Your task to perform on an android device: Open calendar and show me the second week of next month Image 0: 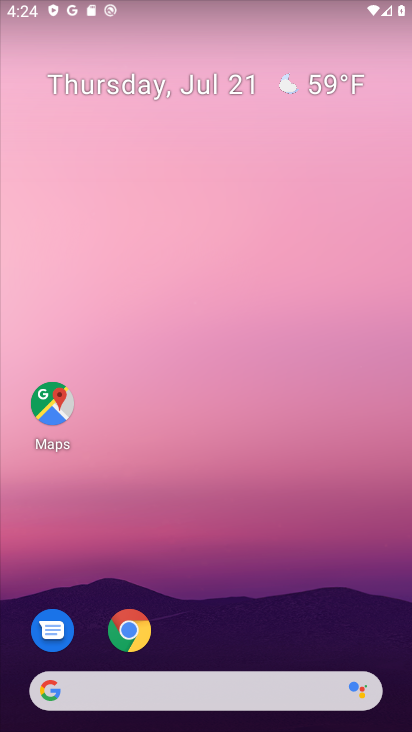
Step 0: drag from (285, 596) to (248, 95)
Your task to perform on an android device: Open calendar and show me the second week of next month Image 1: 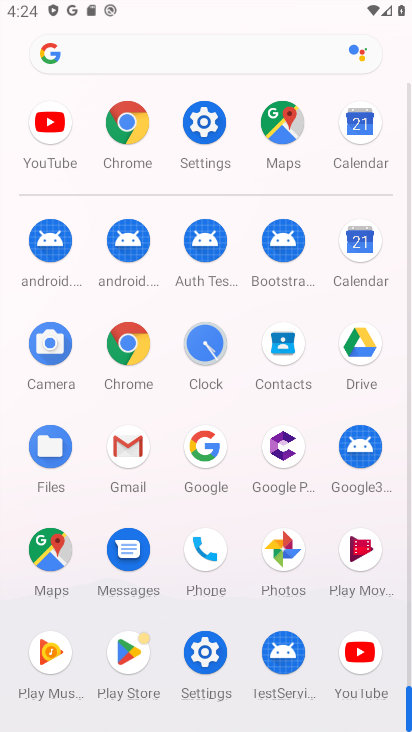
Step 1: click (367, 245)
Your task to perform on an android device: Open calendar and show me the second week of next month Image 2: 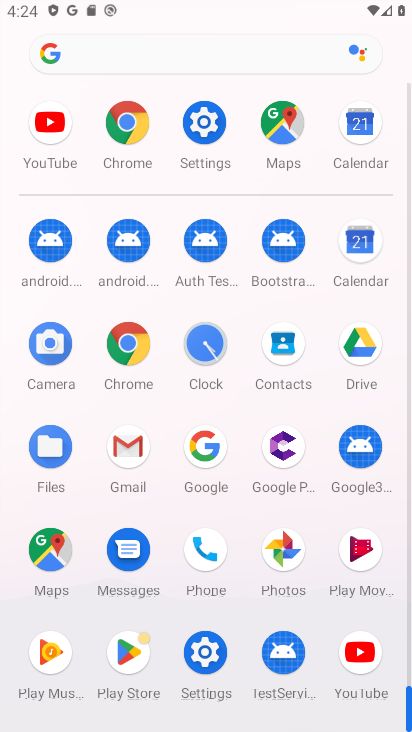
Step 2: click (366, 242)
Your task to perform on an android device: Open calendar and show me the second week of next month Image 3: 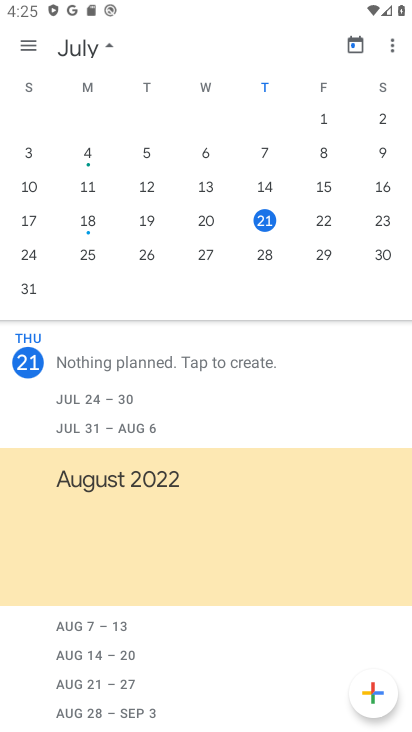
Step 3: drag from (323, 160) to (93, 182)
Your task to perform on an android device: Open calendar and show me the second week of next month Image 4: 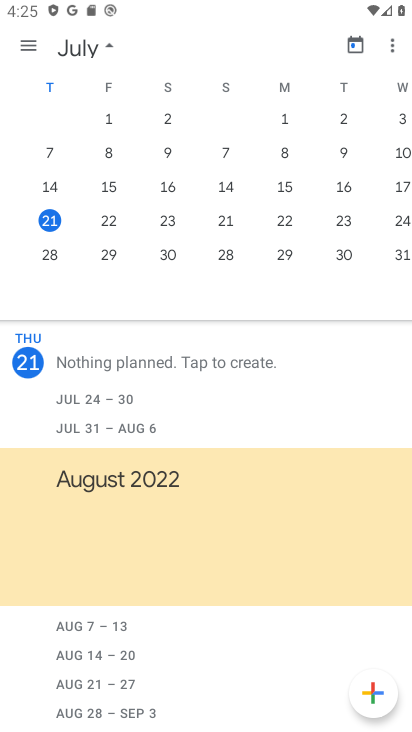
Step 4: drag from (259, 159) to (10, 186)
Your task to perform on an android device: Open calendar and show me the second week of next month Image 5: 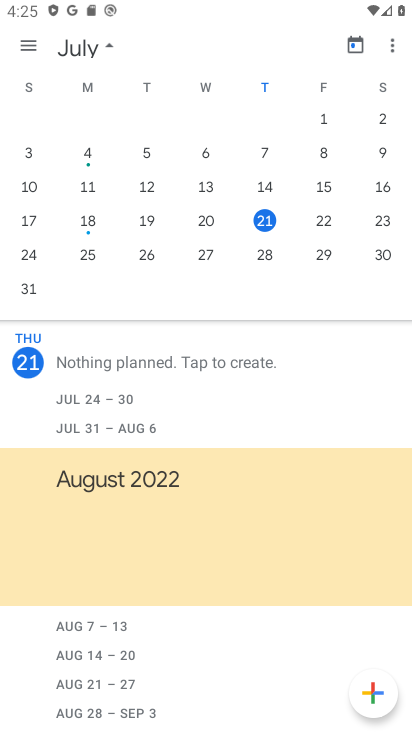
Step 5: drag from (372, 175) to (32, 187)
Your task to perform on an android device: Open calendar and show me the second week of next month Image 6: 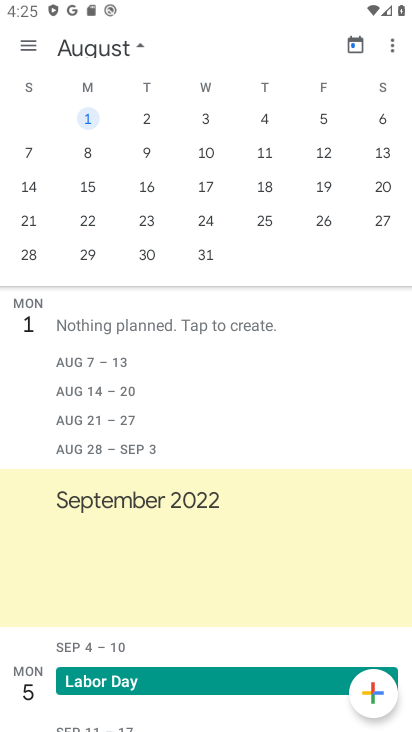
Step 6: click (148, 147)
Your task to perform on an android device: Open calendar and show me the second week of next month Image 7: 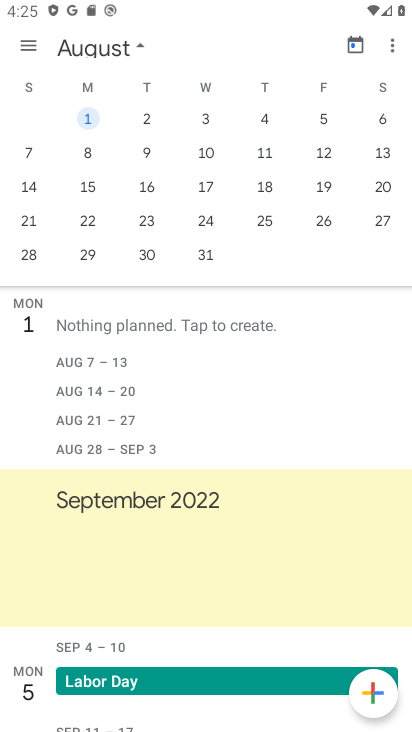
Step 7: click (145, 145)
Your task to perform on an android device: Open calendar and show me the second week of next month Image 8: 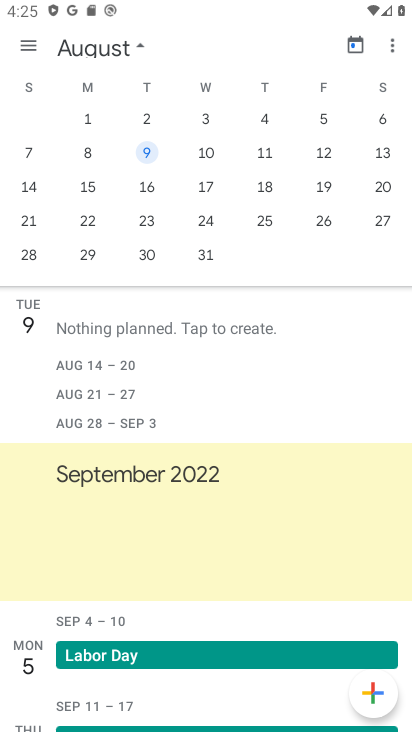
Step 8: click (145, 145)
Your task to perform on an android device: Open calendar and show me the second week of next month Image 9: 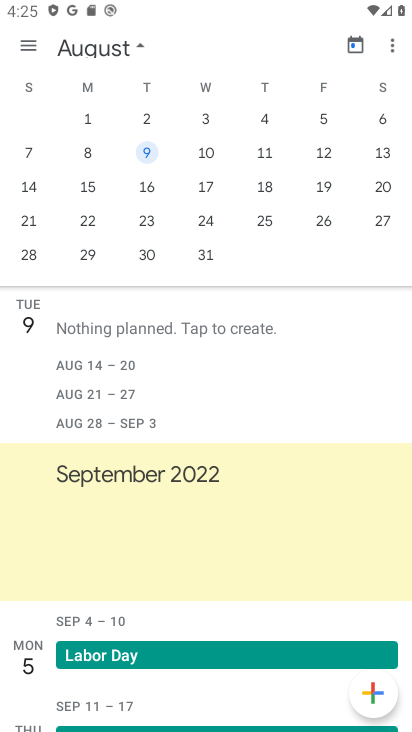
Step 9: task complete